Your task to perform on an android device: Open Amazon Image 0: 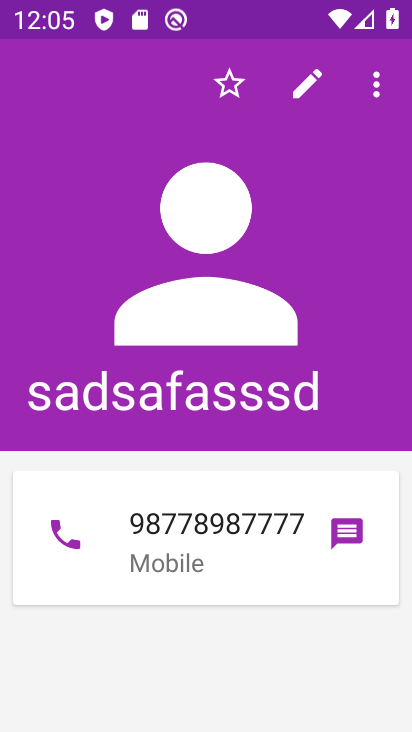
Step 0: press home button
Your task to perform on an android device: Open Amazon Image 1: 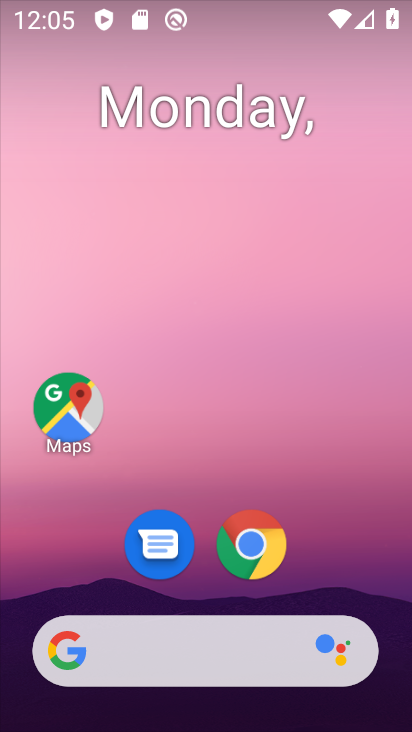
Step 1: drag from (316, 674) to (295, 70)
Your task to perform on an android device: Open Amazon Image 2: 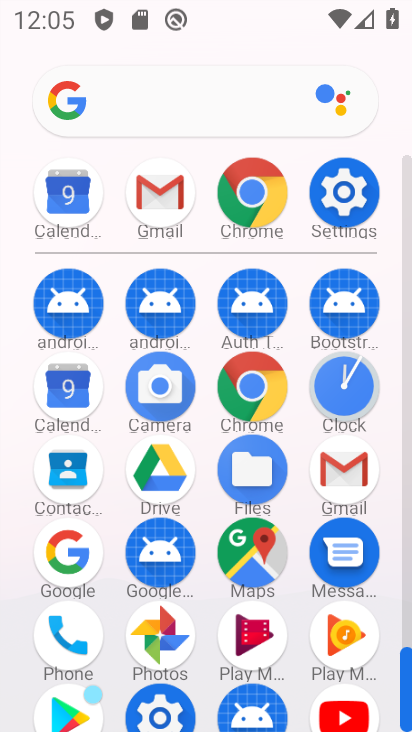
Step 2: click (253, 391)
Your task to perform on an android device: Open Amazon Image 3: 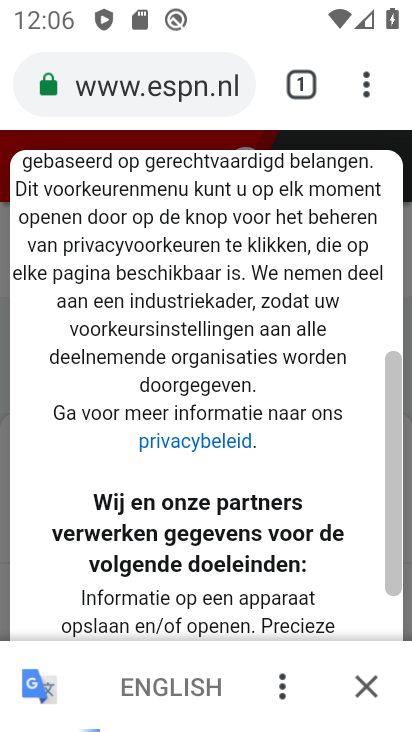
Step 3: press home button
Your task to perform on an android device: Open Amazon Image 4: 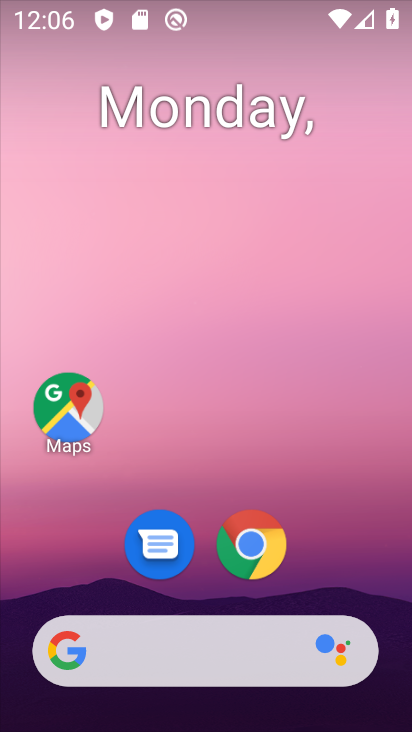
Step 4: drag from (262, 625) to (266, 34)
Your task to perform on an android device: Open Amazon Image 5: 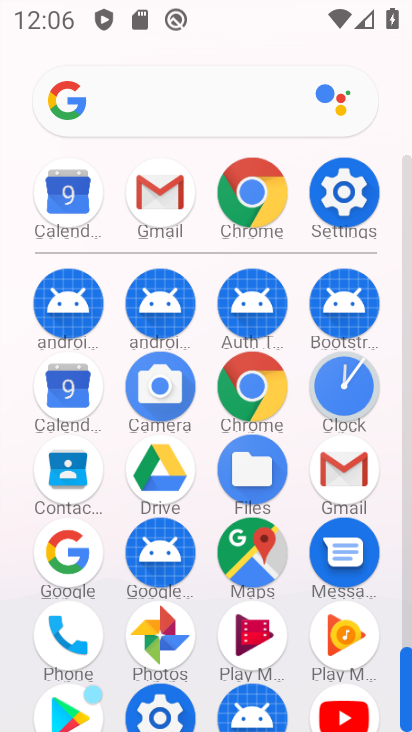
Step 5: click (235, 389)
Your task to perform on an android device: Open Amazon Image 6: 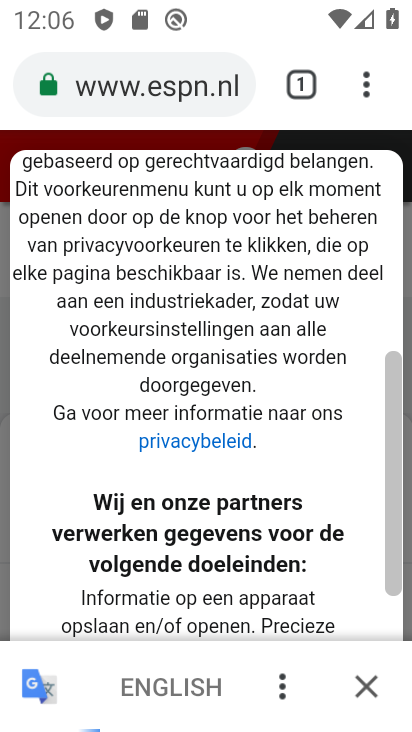
Step 6: click (174, 76)
Your task to perform on an android device: Open Amazon Image 7: 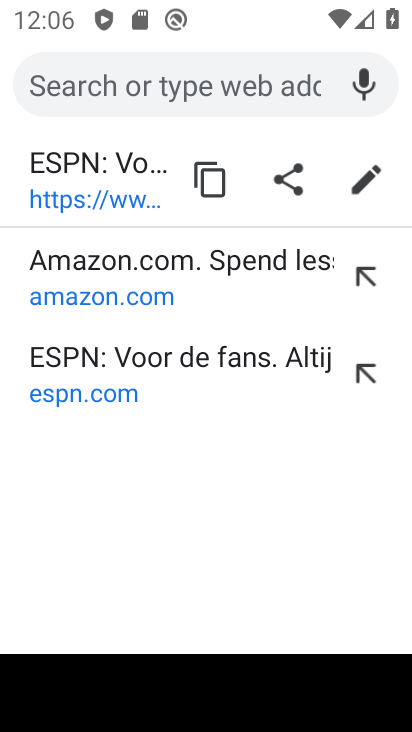
Step 7: type "amazon"
Your task to perform on an android device: Open Amazon Image 8: 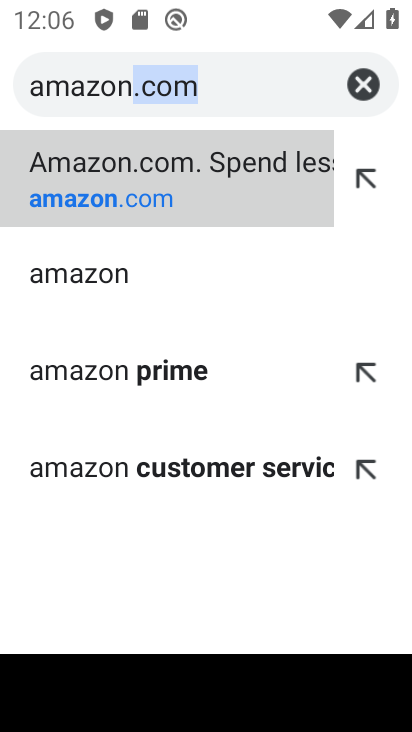
Step 8: click (216, 199)
Your task to perform on an android device: Open Amazon Image 9: 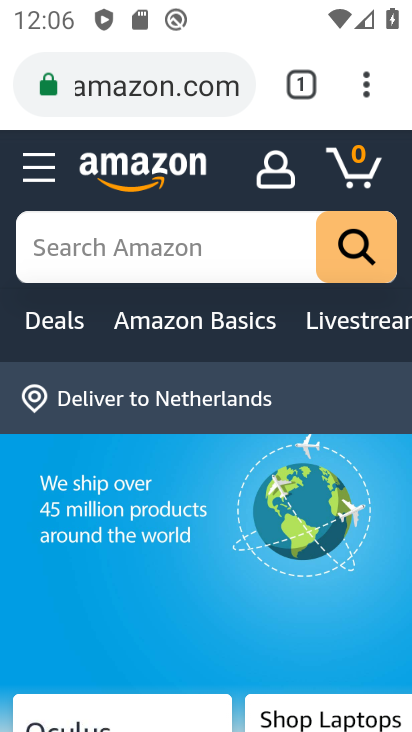
Step 9: task complete